Your task to perform on an android device: Open Maps and search for coffee Image 0: 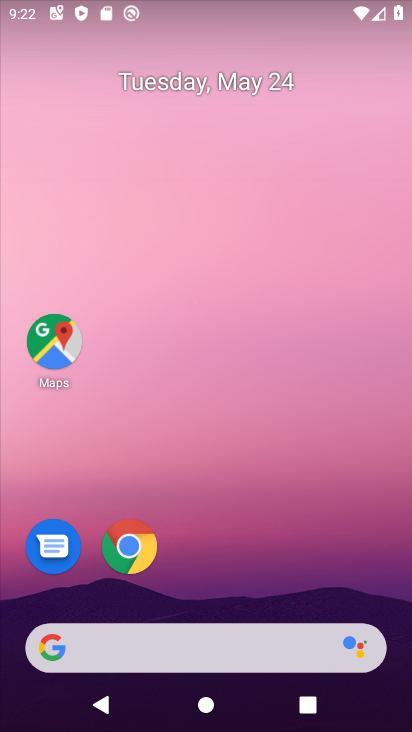
Step 0: click (56, 340)
Your task to perform on an android device: Open Maps and search for coffee Image 1: 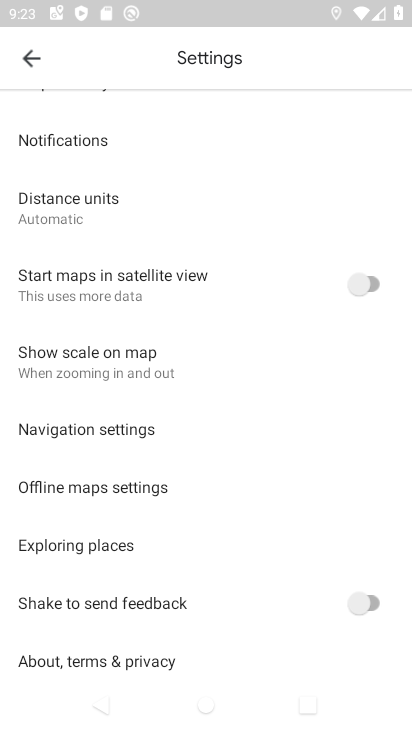
Step 1: press home button
Your task to perform on an android device: Open Maps and search for coffee Image 2: 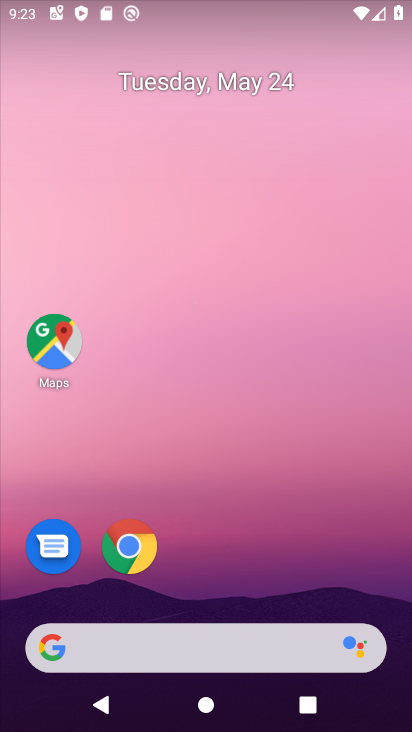
Step 2: click (71, 345)
Your task to perform on an android device: Open Maps and search for coffee Image 3: 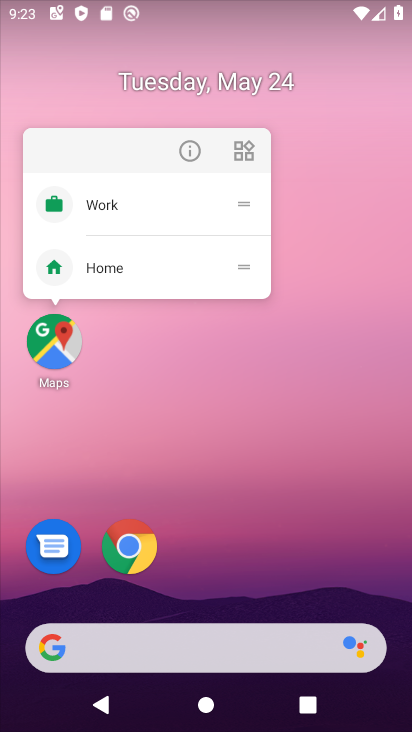
Step 3: click (57, 344)
Your task to perform on an android device: Open Maps and search for coffee Image 4: 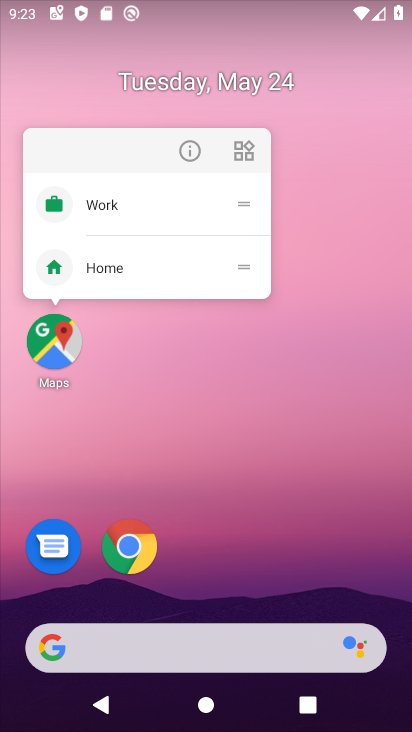
Step 4: click (62, 353)
Your task to perform on an android device: Open Maps and search for coffee Image 5: 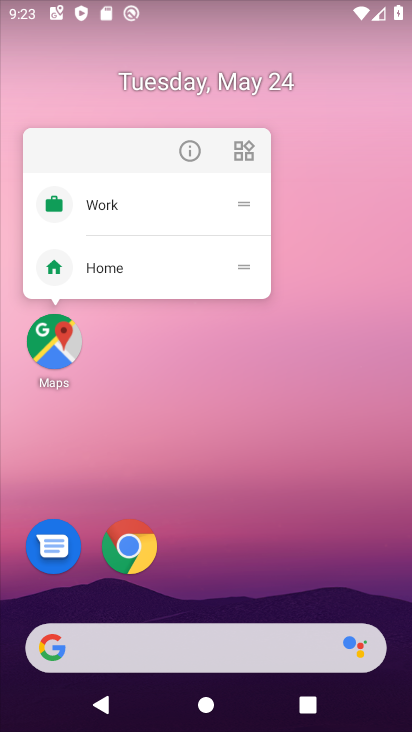
Step 5: click (55, 362)
Your task to perform on an android device: Open Maps and search for coffee Image 6: 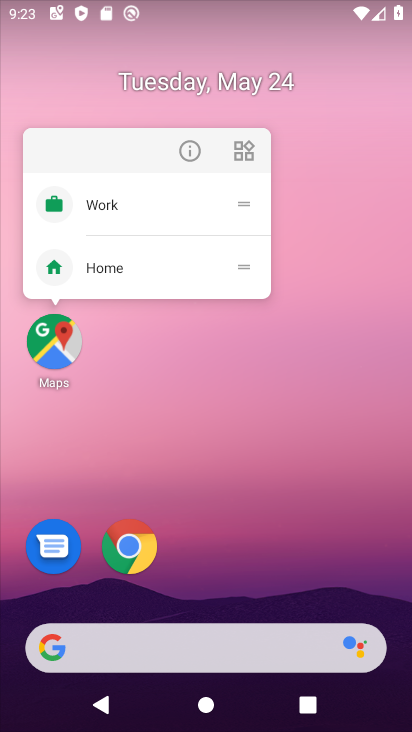
Step 6: click (55, 362)
Your task to perform on an android device: Open Maps and search for coffee Image 7: 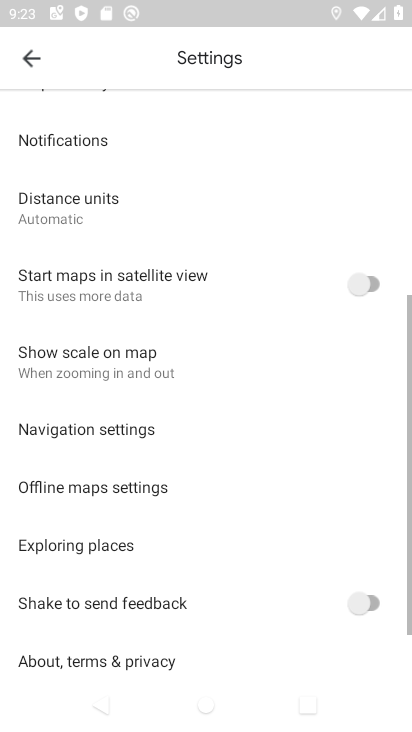
Step 7: click (23, 56)
Your task to perform on an android device: Open Maps and search for coffee Image 8: 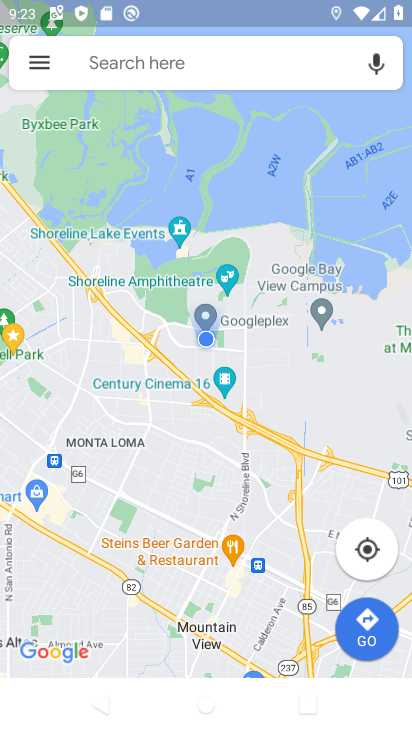
Step 8: click (173, 53)
Your task to perform on an android device: Open Maps and search for coffee Image 9: 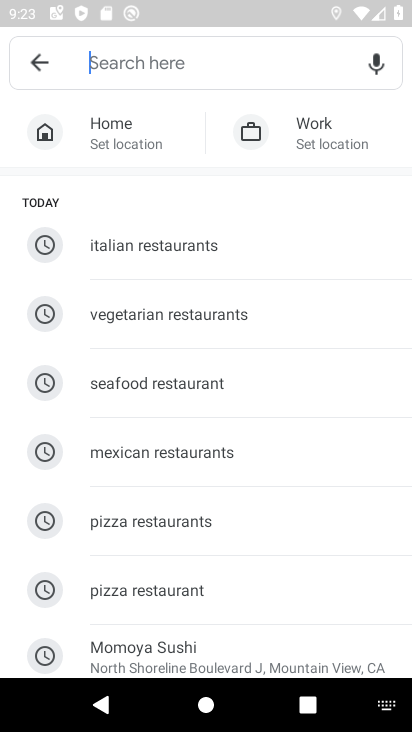
Step 9: drag from (153, 647) to (173, 273)
Your task to perform on an android device: Open Maps and search for coffee Image 10: 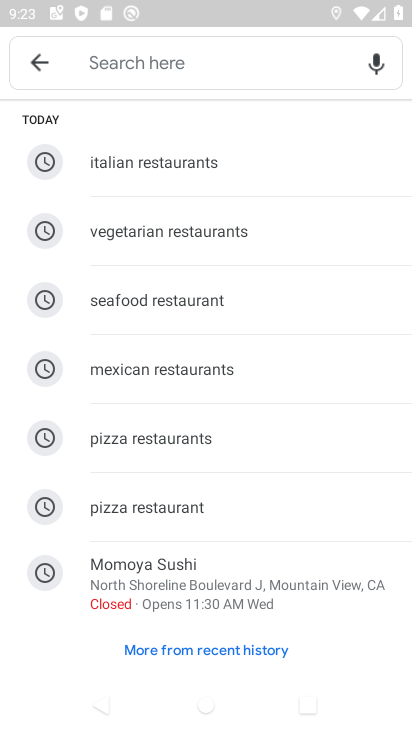
Step 10: click (194, 649)
Your task to perform on an android device: Open Maps and search for coffee Image 11: 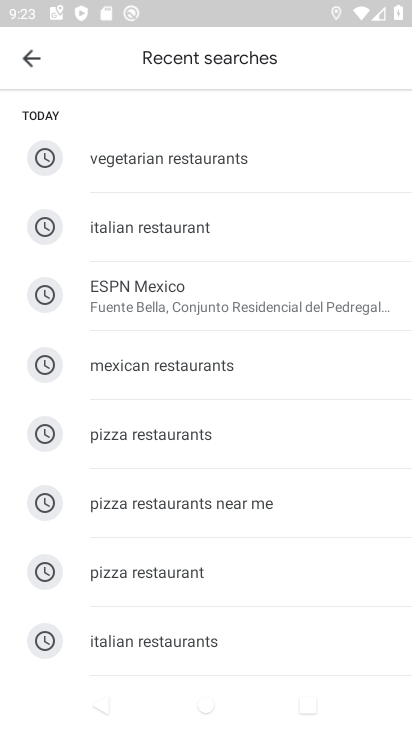
Step 11: drag from (135, 624) to (170, 204)
Your task to perform on an android device: Open Maps and search for coffee Image 12: 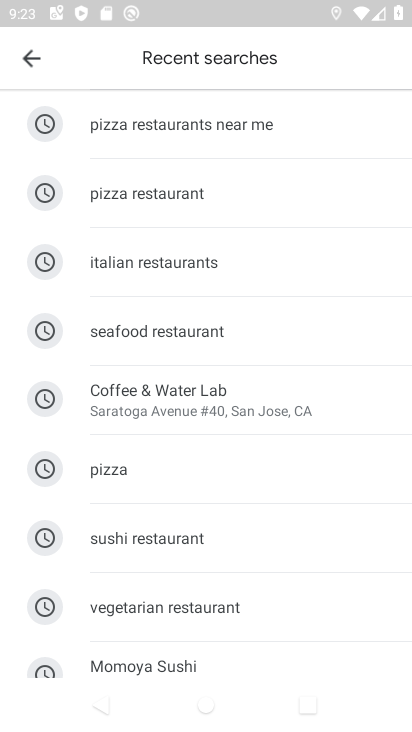
Step 12: drag from (162, 633) to (147, 276)
Your task to perform on an android device: Open Maps and search for coffee Image 13: 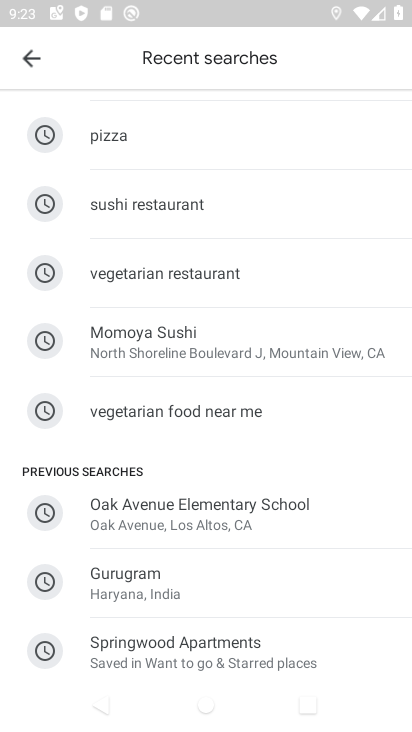
Step 13: drag from (151, 661) to (148, 299)
Your task to perform on an android device: Open Maps and search for coffee Image 14: 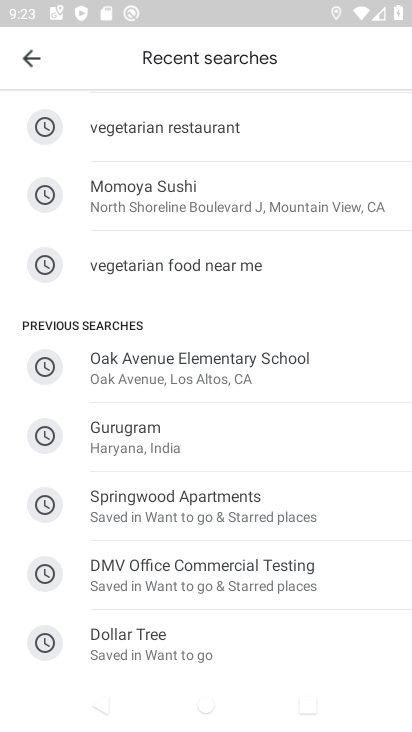
Step 14: click (27, 63)
Your task to perform on an android device: Open Maps and search for coffee Image 15: 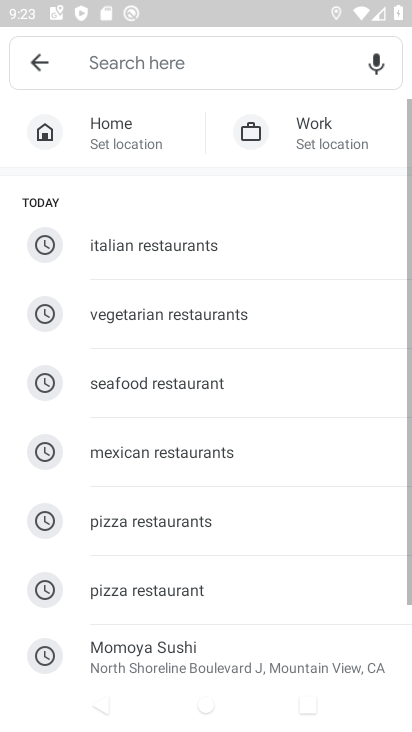
Step 15: click (114, 60)
Your task to perform on an android device: Open Maps and search for coffee Image 16: 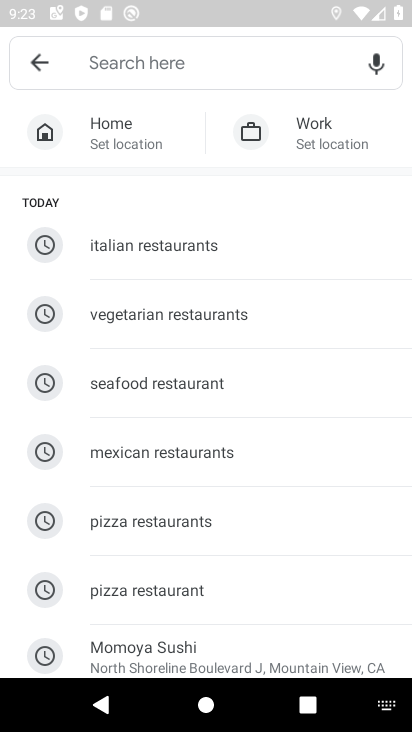
Step 16: type "coffee"
Your task to perform on an android device: Open Maps and search for coffee Image 17: 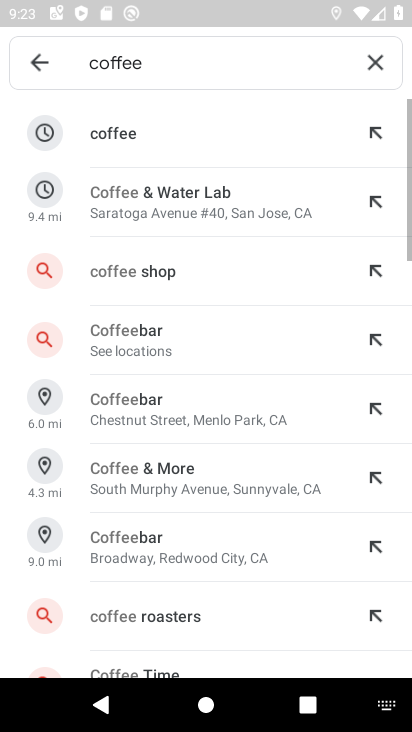
Step 17: click (119, 122)
Your task to perform on an android device: Open Maps and search for coffee Image 18: 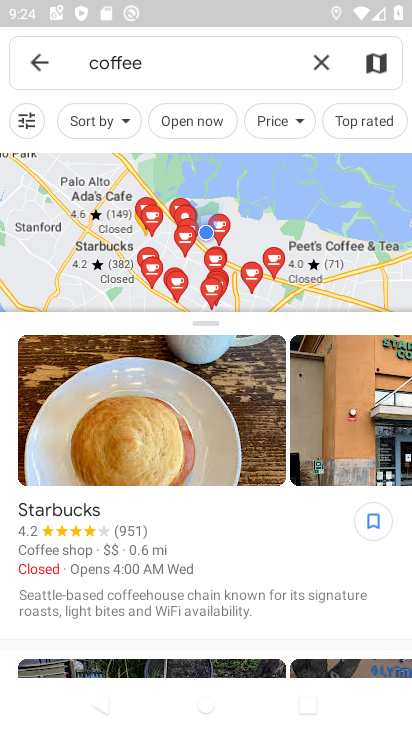
Step 18: task complete